Your task to perform on an android device: Open Google Image 0: 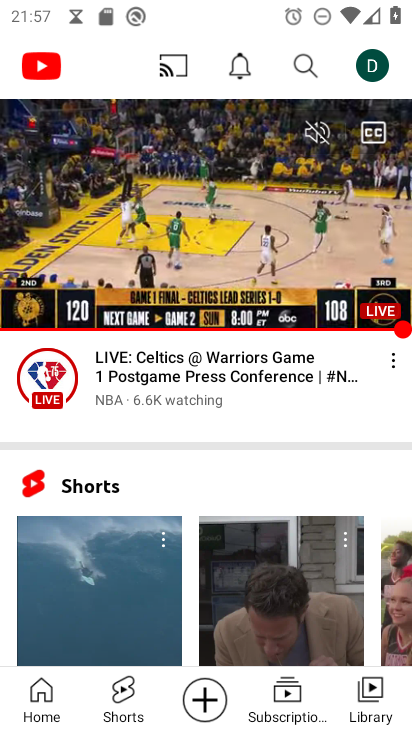
Step 0: press home button
Your task to perform on an android device: Open Google Image 1: 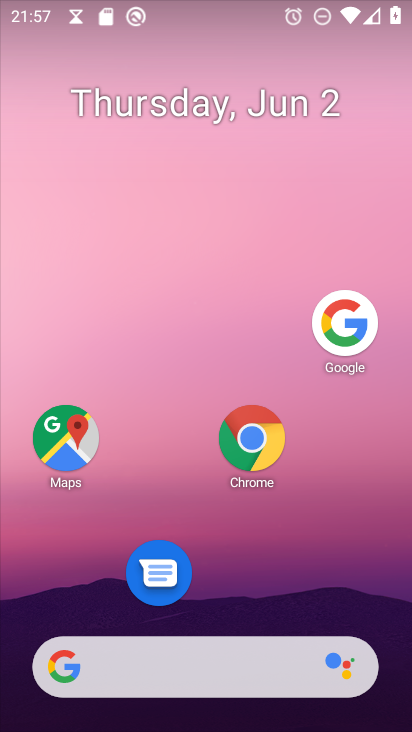
Step 1: drag from (183, 666) to (313, 35)
Your task to perform on an android device: Open Google Image 2: 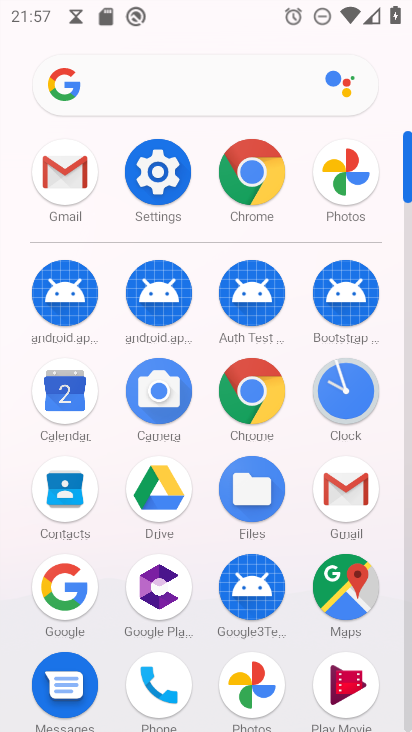
Step 2: click (79, 597)
Your task to perform on an android device: Open Google Image 3: 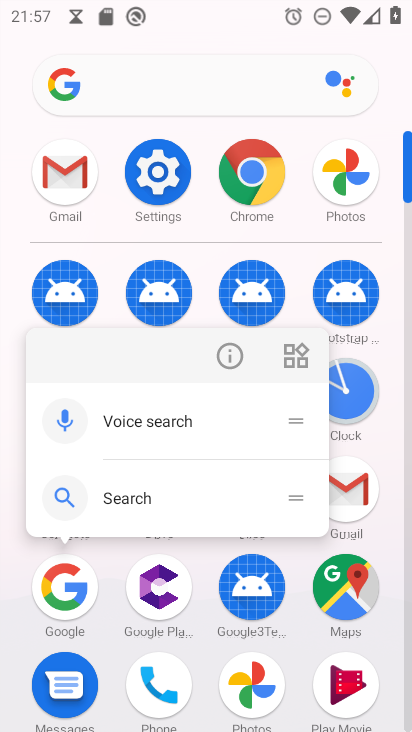
Step 3: click (77, 597)
Your task to perform on an android device: Open Google Image 4: 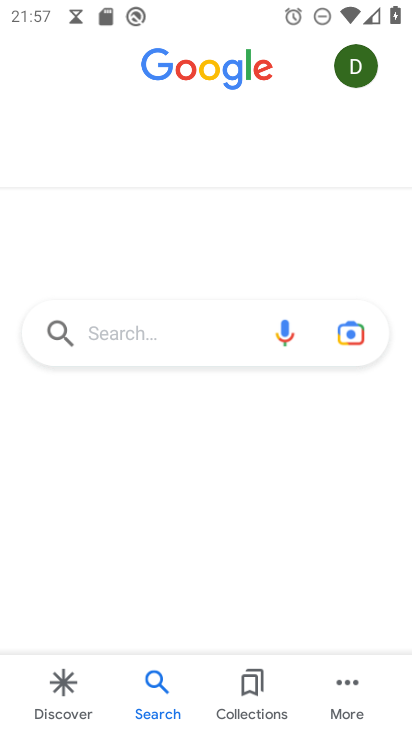
Step 4: click (73, 699)
Your task to perform on an android device: Open Google Image 5: 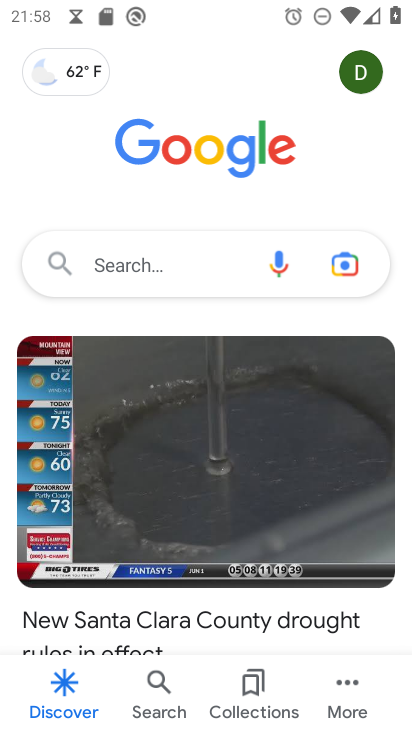
Step 5: task complete